Your task to perform on an android device: Open notification settings Image 0: 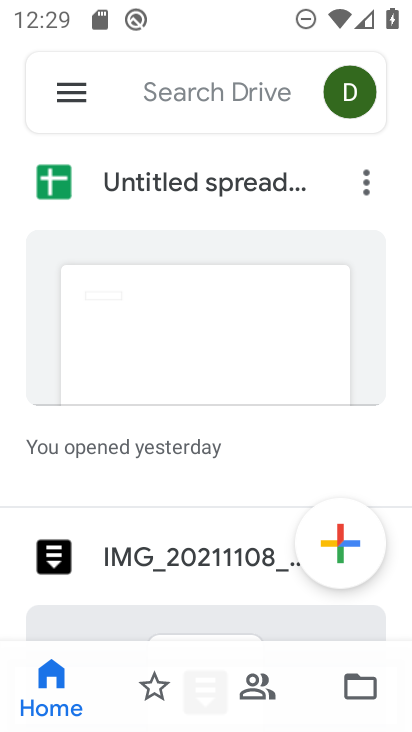
Step 0: press home button
Your task to perform on an android device: Open notification settings Image 1: 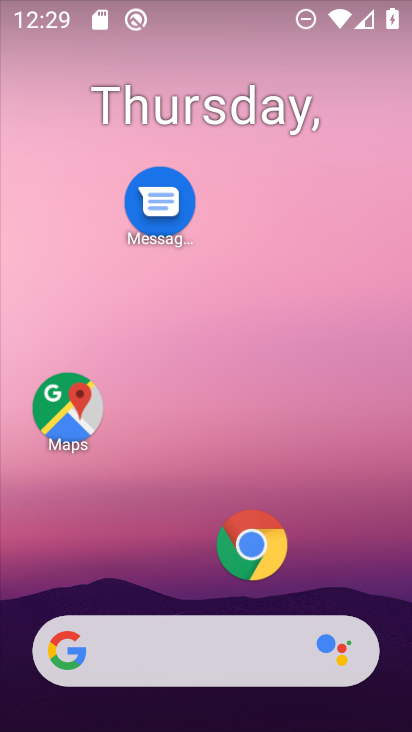
Step 1: drag from (212, 593) to (293, 48)
Your task to perform on an android device: Open notification settings Image 2: 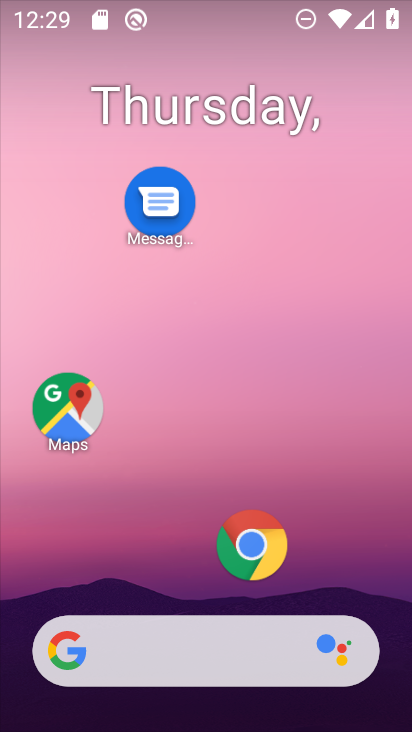
Step 2: drag from (185, 584) to (249, 91)
Your task to perform on an android device: Open notification settings Image 3: 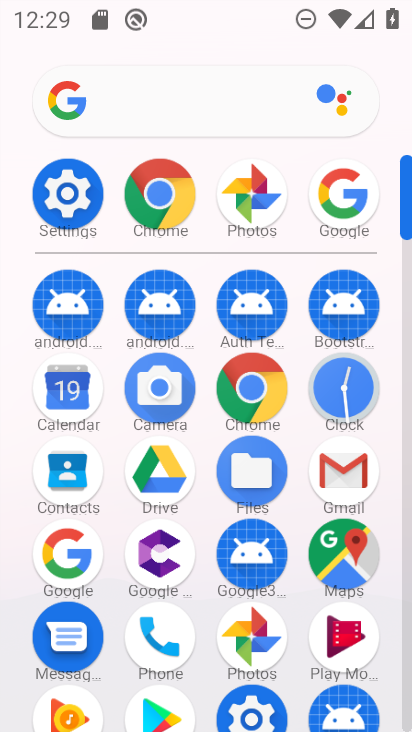
Step 3: click (80, 185)
Your task to perform on an android device: Open notification settings Image 4: 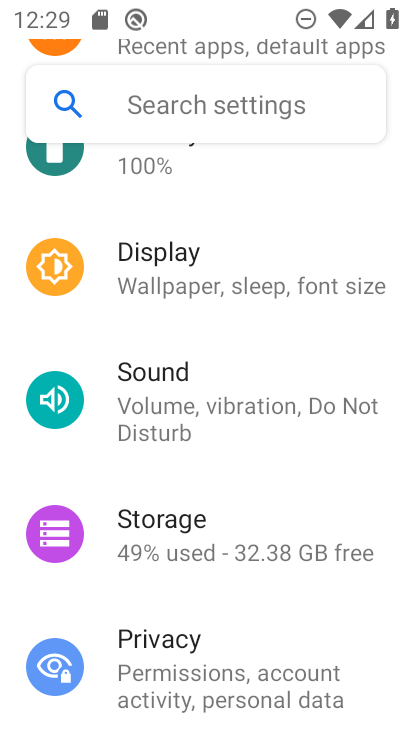
Step 4: drag from (256, 266) to (287, 520)
Your task to perform on an android device: Open notification settings Image 5: 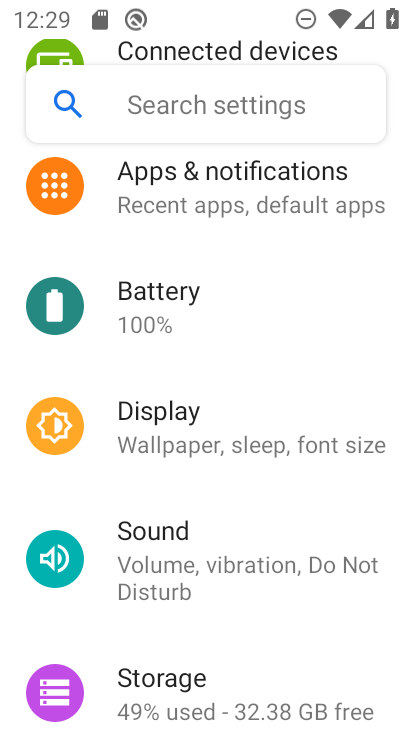
Step 5: click (243, 210)
Your task to perform on an android device: Open notification settings Image 6: 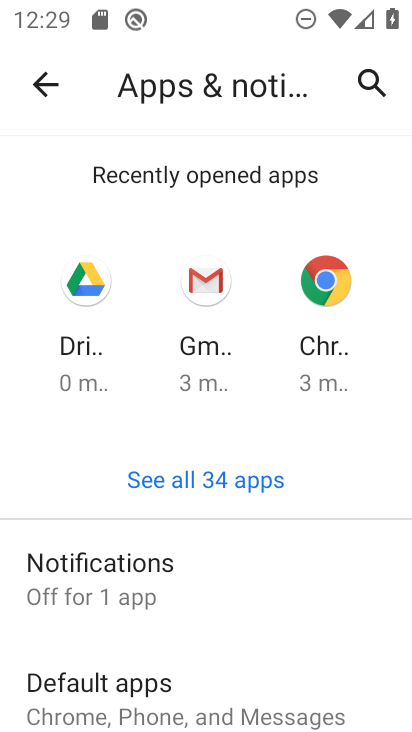
Step 6: click (244, 596)
Your task to perform on an android device: Open notification settings Image 7: 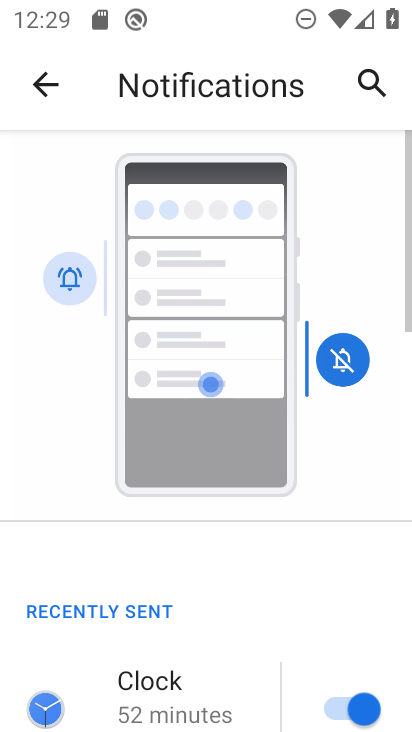
Step 7: task complete